Your task to perform on an android device: turn off picture-in-picture Image 0: 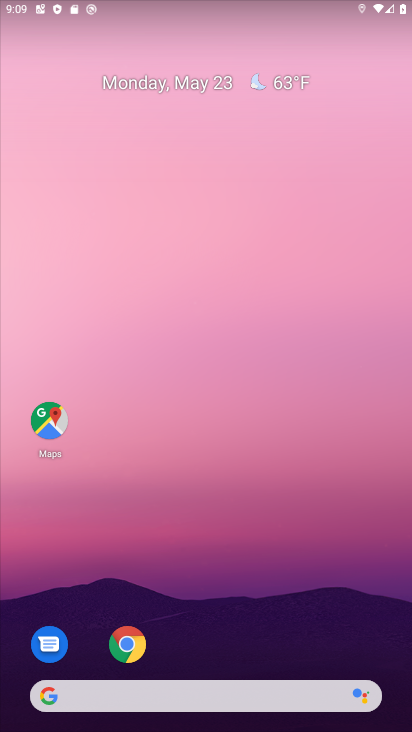
Step 0: click (126, 642)
Your task to perform on an android device: turn off picture-in-picture Image 1: 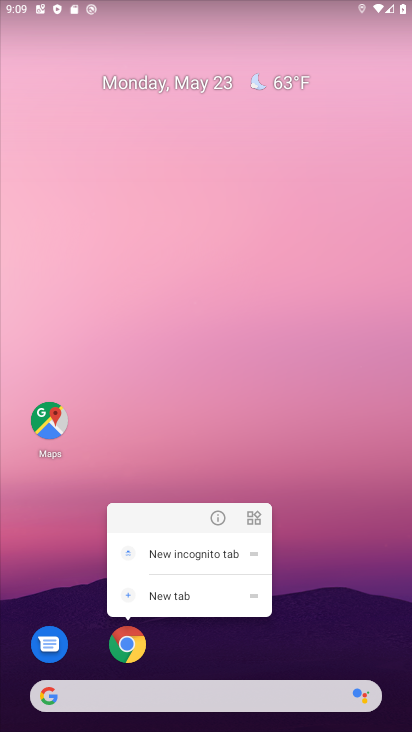
Step 1: click (216, 513)
Your task to perform on an android device: turn off picture-in-picture Image 2: 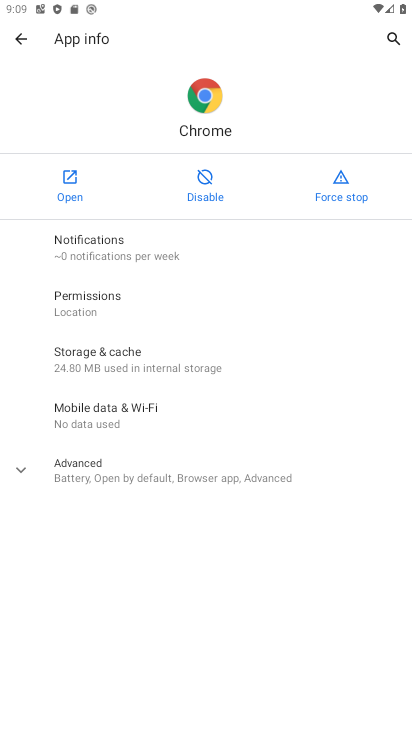
Step 2: click (55, 458)
Your task to perform on an android device: turn off picture-in-picture Image 3: 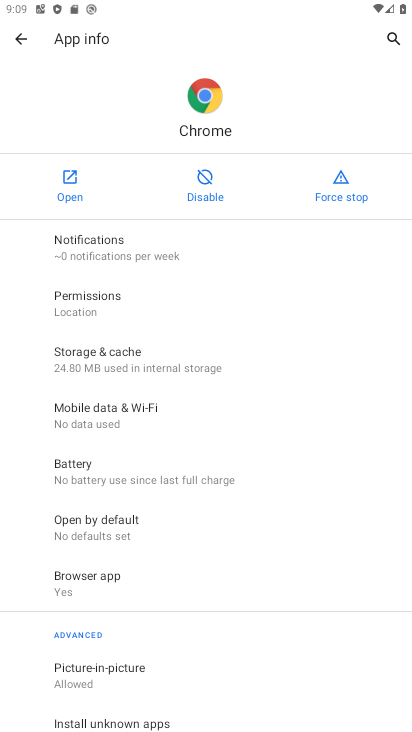
Step 3: drag from (114, 672) to (152, 194)
Your task to perform on an android device: turn off picture-in-picture Image 4: 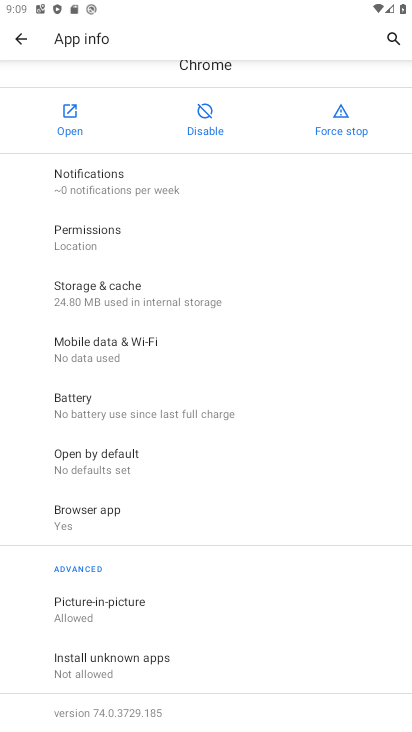
Step 4: click (121, 610)
Your task to perform on an android device: turn off picture-in-picture Image 5: 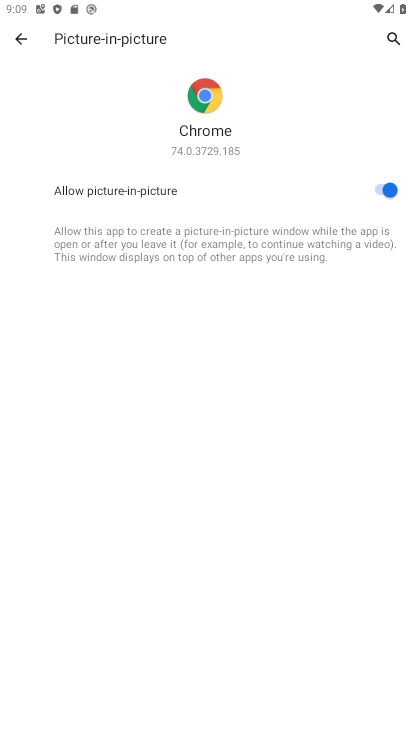
Step 5: click (381, 186)
Your task to perform on an android device: turn off picture-in-picture Image 6: 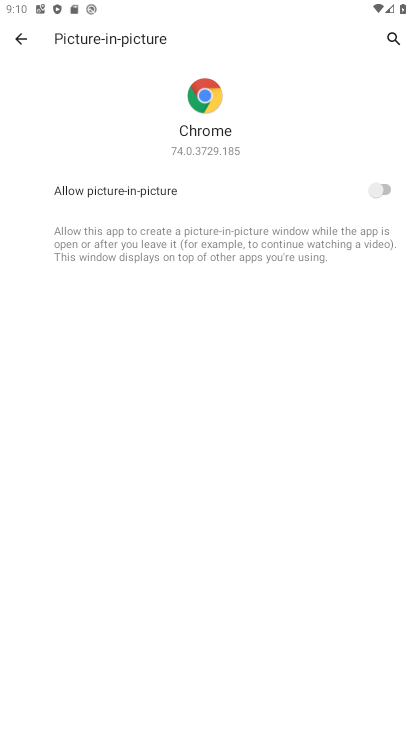
Step 6: task complete